Your task to perform on an android device: turn on javascript in the chrome app Image 0: 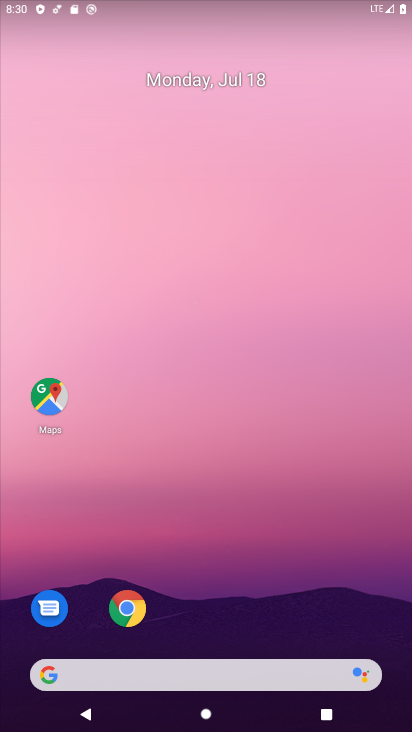
Step 0: click (127, 613)
Your task to perform on an android device: turn on javascript in the chrome app Image 1: 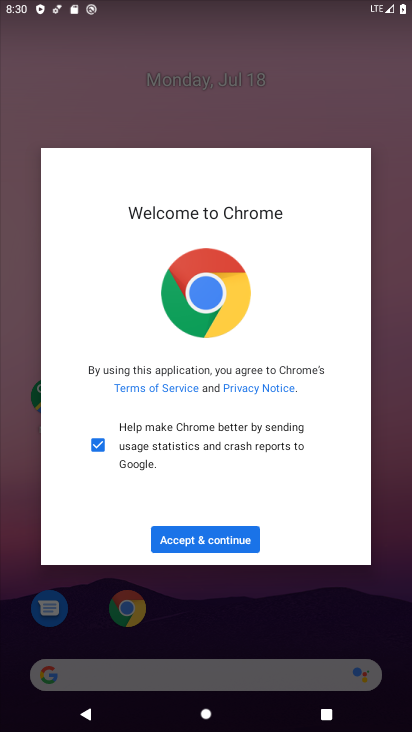
Step 1: click (204, 545)
Your task to perform on an android device: turn on javascript in the chrome app Image 2: 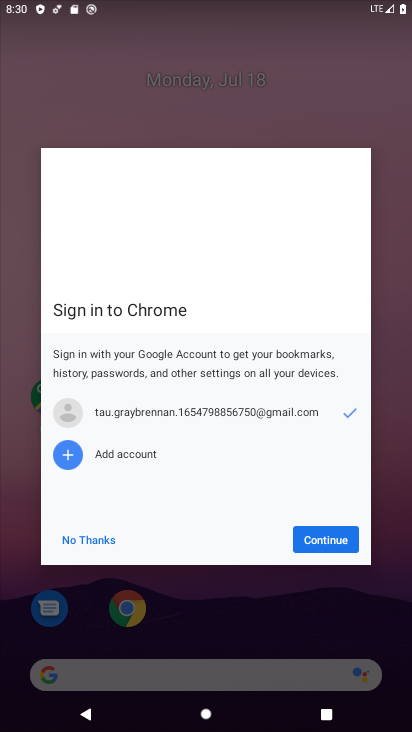
Step 2: click (318, 546)
Your task to perform on an android device: turn on javascript in the chrome app Image 3: 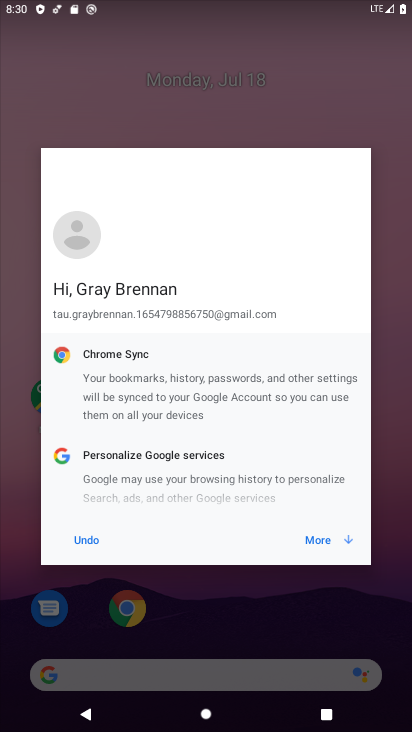
Step 3: click (318, 546)
Your task to perform on an android device: turn on javascript in the chrome app Image 4: 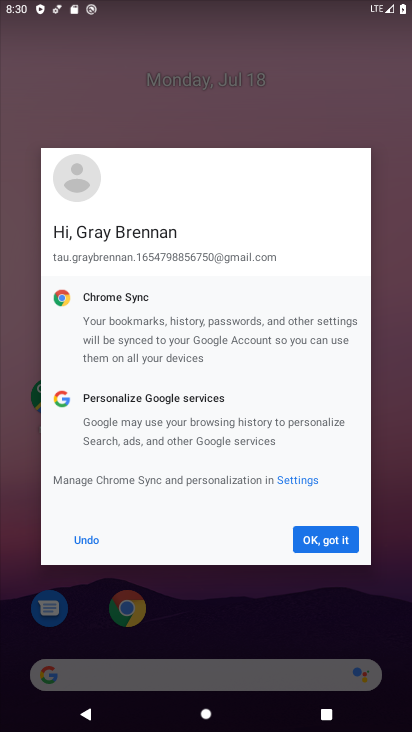
Step 4: click (318, 546)
Your task to perform on an android device: turn on javascript in the chrome app Image 5: 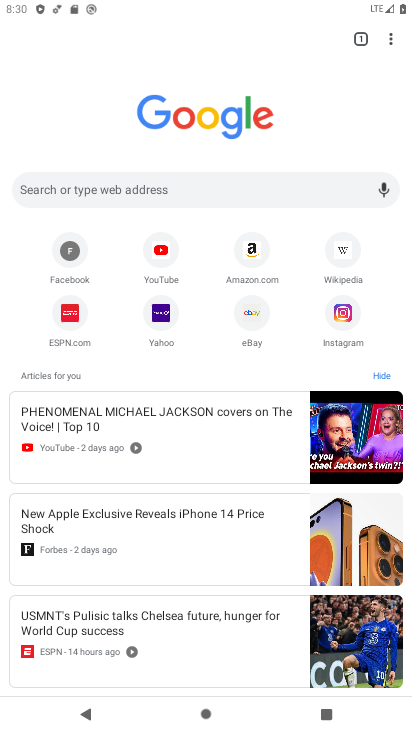
Step 5: click (391, 32)
Your task to perform on an android device: turn on javascript in the chrome app Image 6: 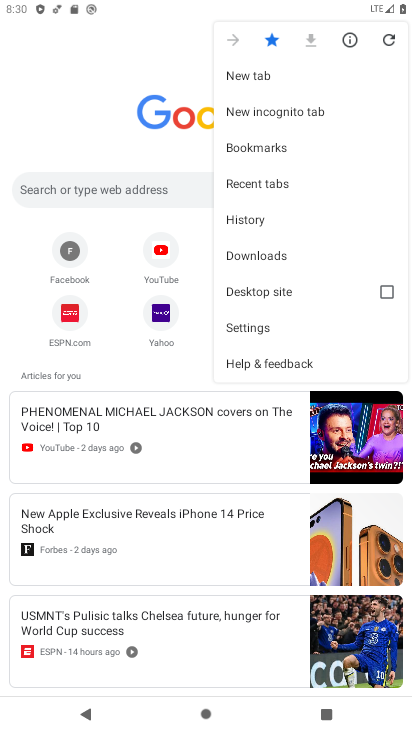
Step 6: click (279, 327)
Your task to perform on an android device: turn on javascript in the chrome app Image 7: 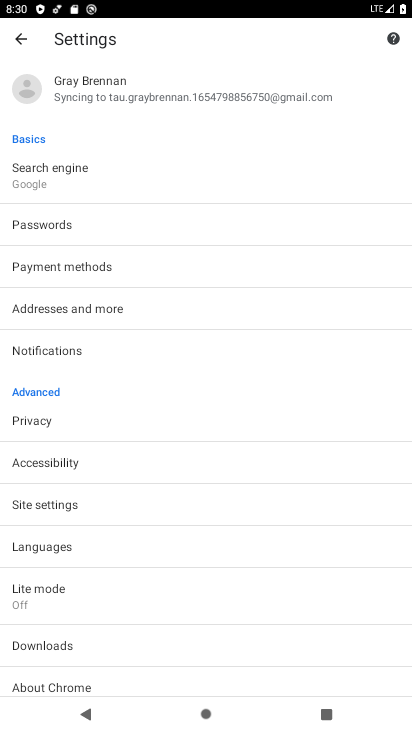
Step 7: click (129, 503)
Your task to perform on an android device: turn on javascript in the chrome app Image 8: 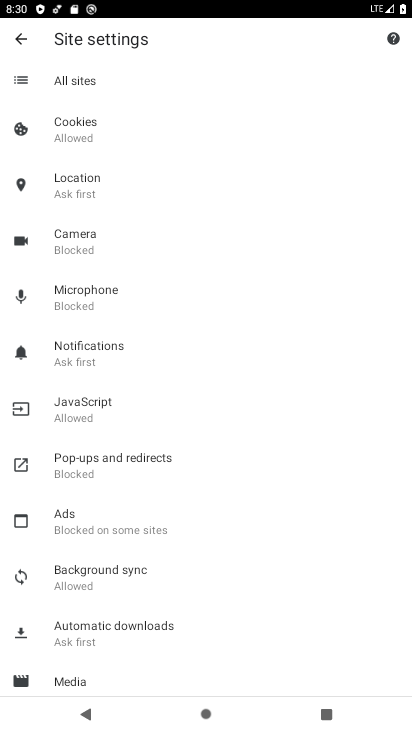
Step 8: click (153, 403)
Your task to perform on an android device: turn on javascript in the chrome app Image 9: 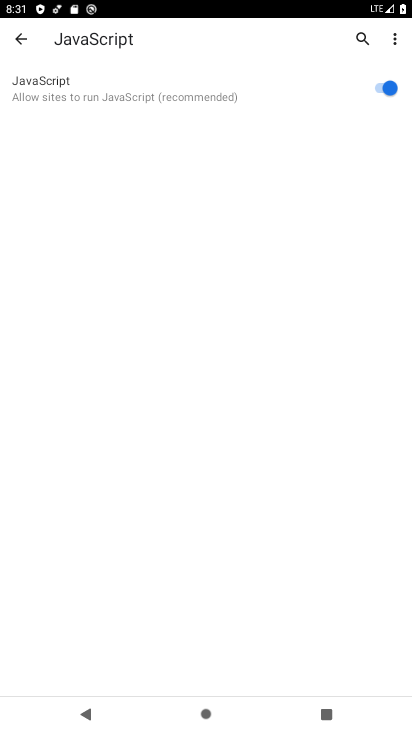
Step 9: task complete